Your task to perform on an android device: Do I have any events this weekend? Image 0: 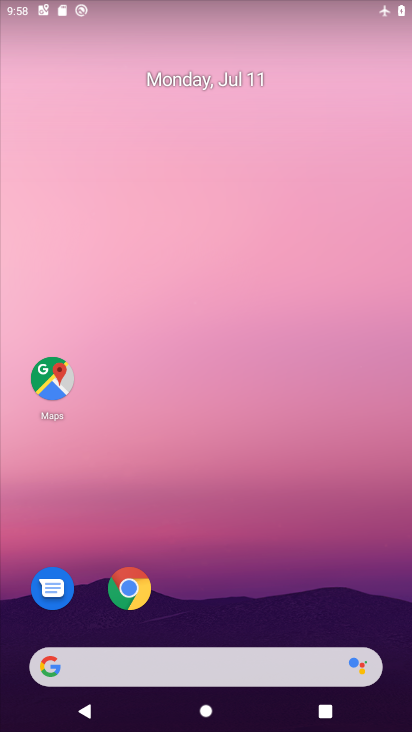
Step 0: drag from (194, 638) to (232, 75)
Your task to perform on an android device: Do I have any events this weekend? Image 1: 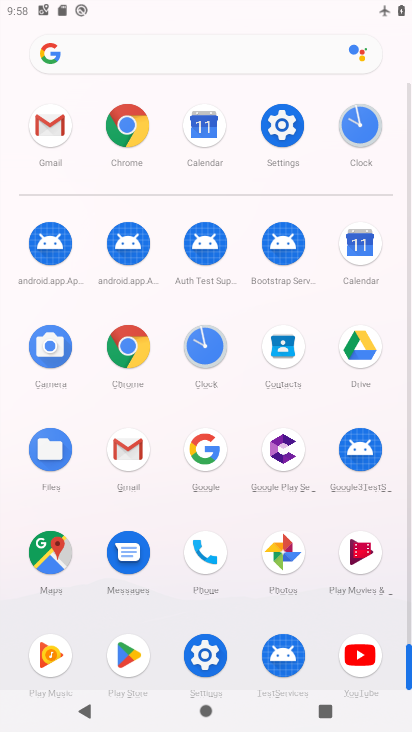
Step 1: click (206, 121)
Your task to perform on an android device: Do I have any events this weekend? Image 2: 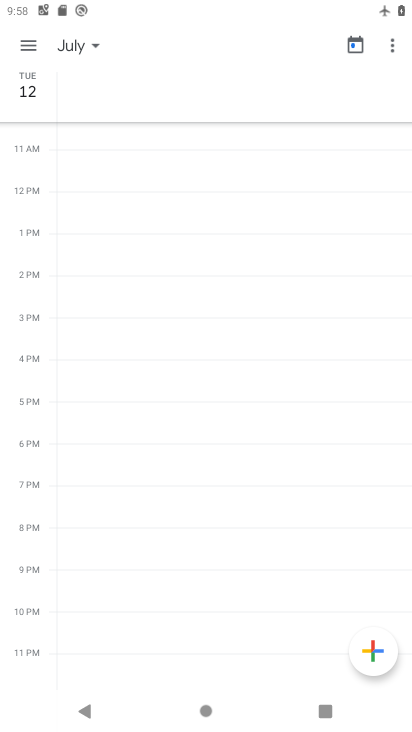
Step 2: click (28, 44)
Your task to perform on an android device: Do I have any events this weekend? Image 3: 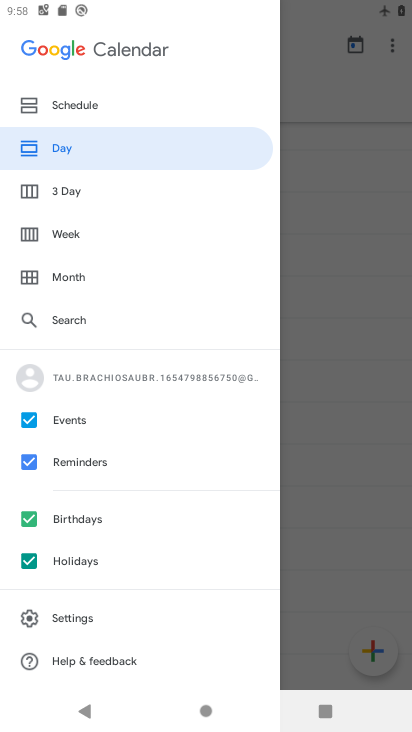
Step 3: click (77, 241)
Your task to perform on an android device: Do I have any events this weekend? Image 4: 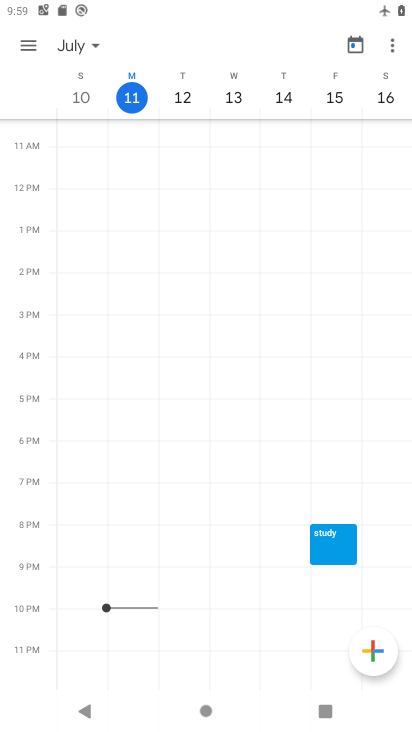
Step 4: task complete